Your task to perform on an android device: Go to Yahoo.com Image 0: 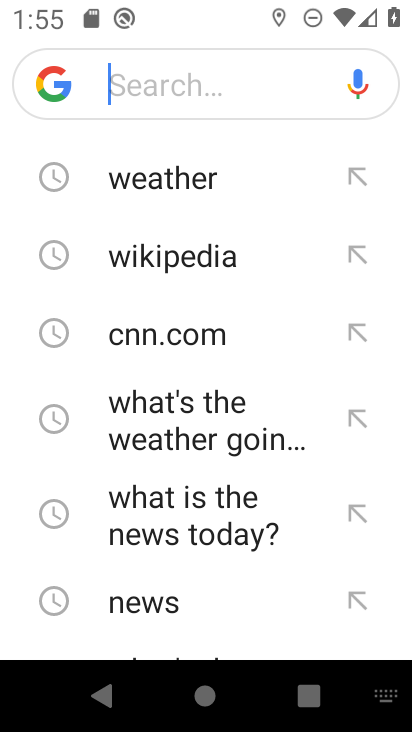
Step 0: press home button
Your task to perform on an android device: Go to Yahoo.com Image 1: 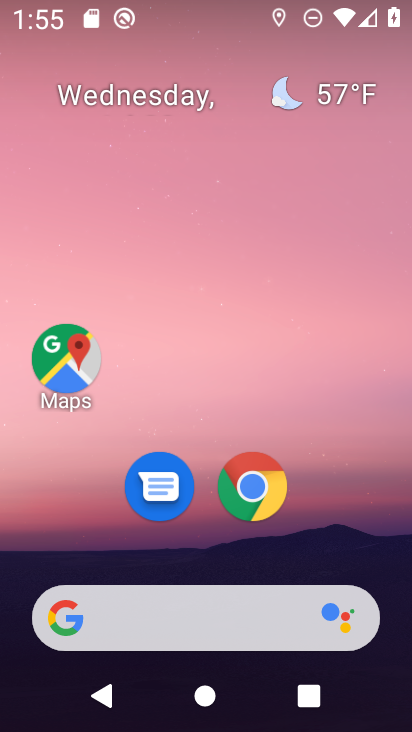
Step 1: drag from (374, 555) to (396, 115)
Your task to perform on an android device: Go to Yahoo.com Image 2: 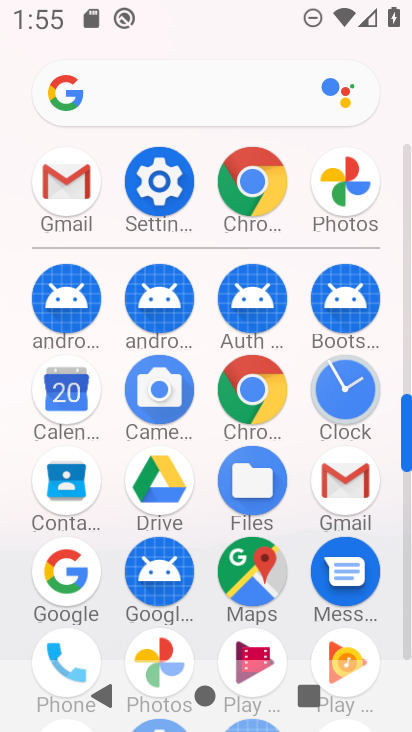
Step 2: click (258, 385)
Your task to perform on an android device: Go to Yahoo.com Image 3: 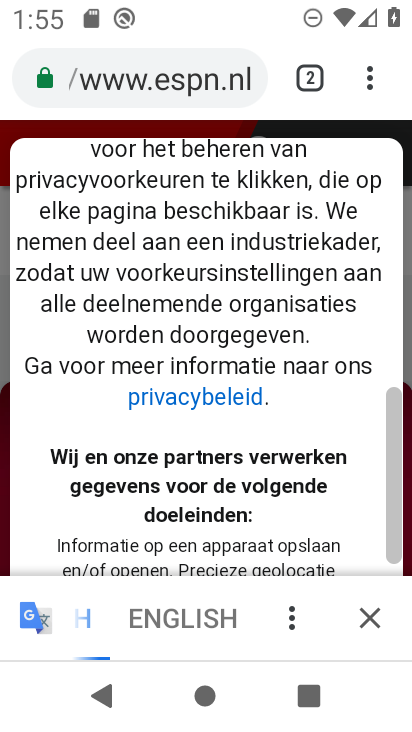
Step 3: click (226, 82)
Your task to perform on an android device: Go to Yahoo.com Image 4: 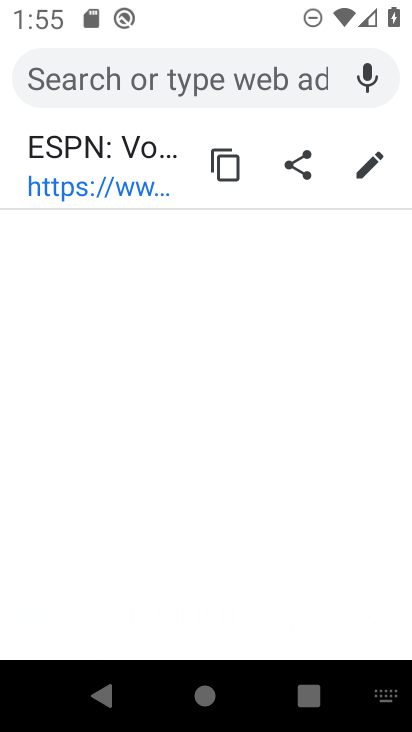
Step 4: type "yahoo.com"
Your task to perform on an android device: Go to Yahoo.com Image 5: 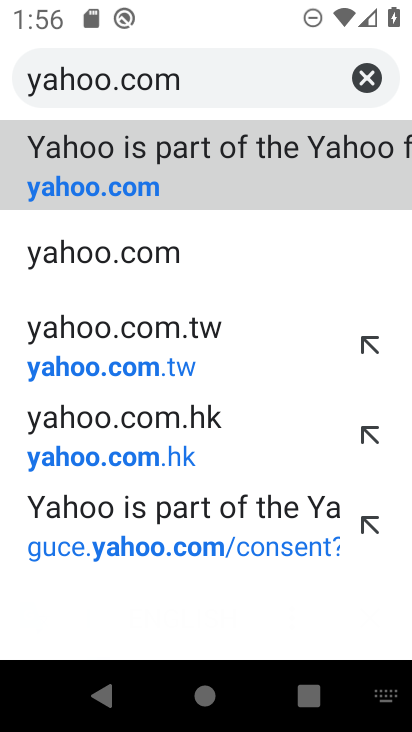
Step 5: click (248, 185)
Your task to perform on an android device: Go to Yahoo.com Image 6: 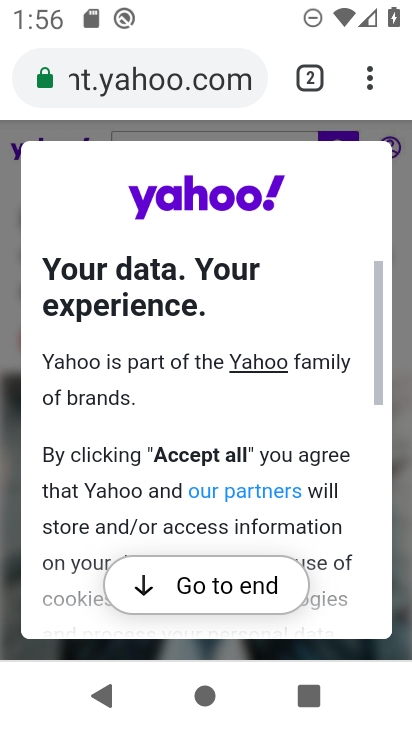
Step 6: task complete